Your task to perform on an android device: Open Chrome and go to the settings page Image 0: 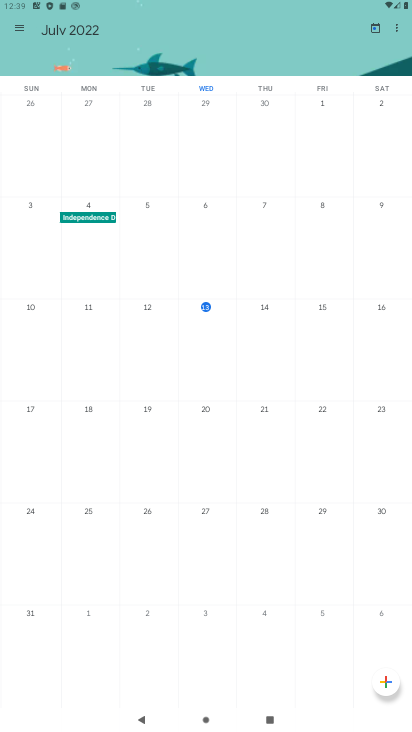
Step 0: press home button
Your task to perform on an android device: Open Chrome and go to the settings page Image 1: 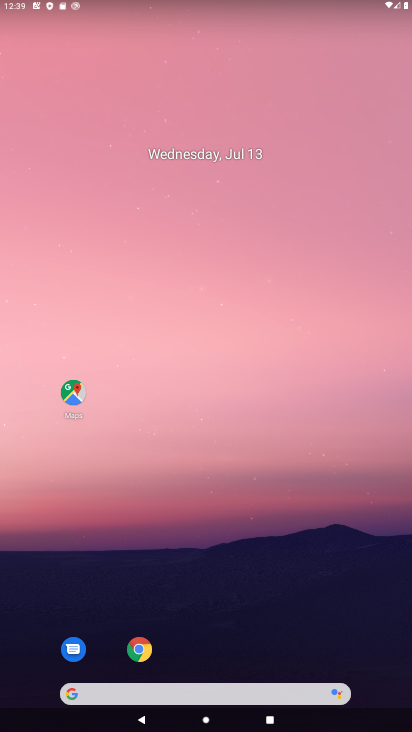
Step 1: drag from (218, 686) to (272, 186)
Your task to perform on an android device: Open Chrome and go to the settings page Image 2: 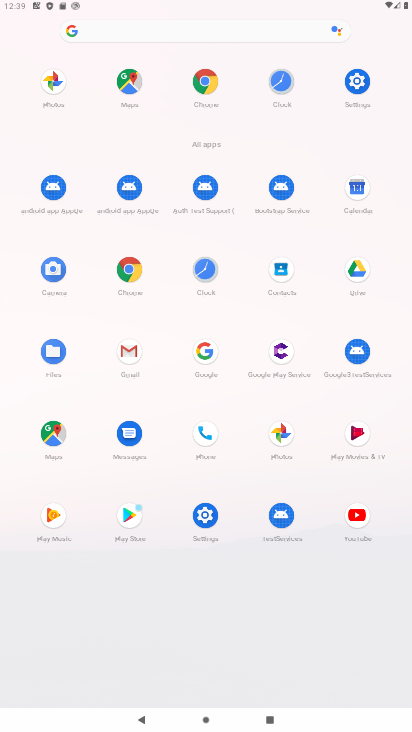
Step 2: click (133, 250)
Your task to perform on an android device: Open Chrome and go to the settings page Image 3: 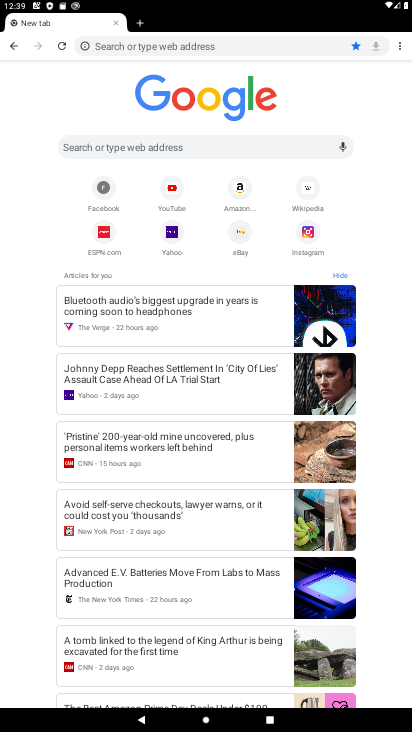
Step 3: task complete